Your task to perform on an android device: empty trash in the gmail app Image 0: 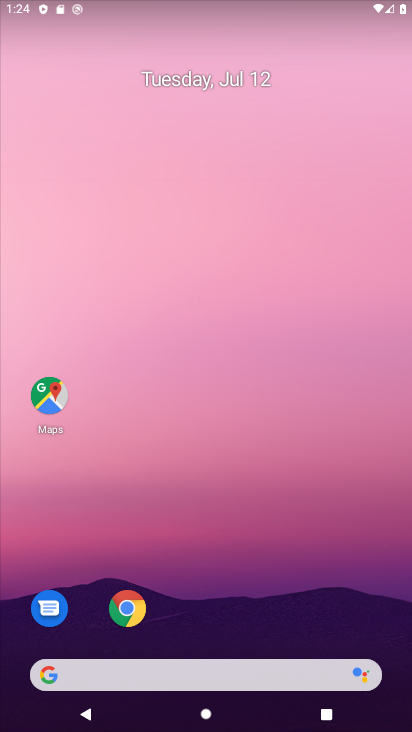
Step 0: click (211, 70)
Your task to perform on an android device: empty trash in the gmail app Image 1: 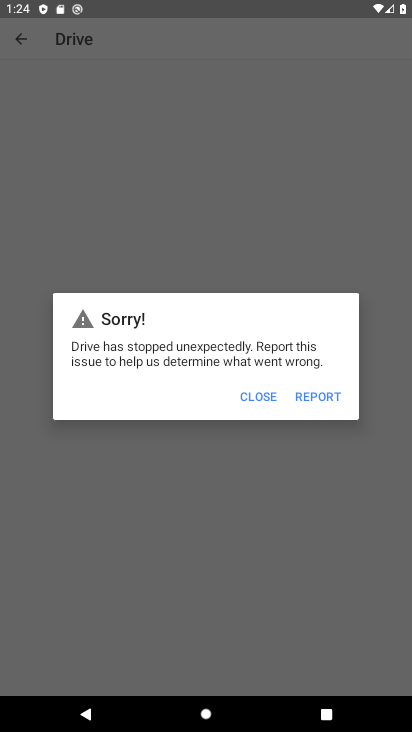
Step 1: press home button
Your task to perform on an android device: empty trash in the gmail app Image 2: 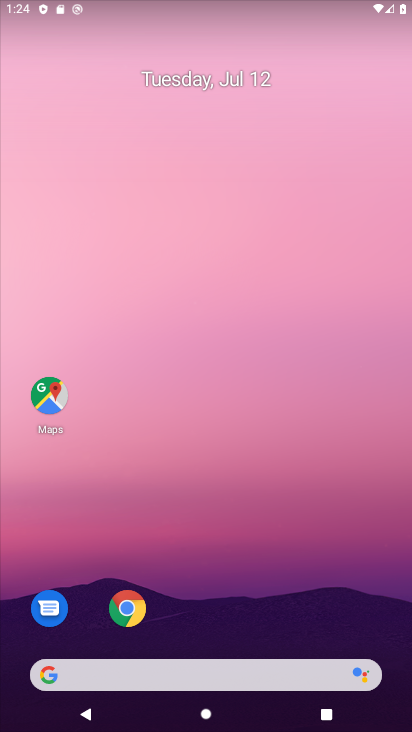
Step 2: drag from (208, 648) to (303, 66)
Your task to perform on an android device: empty trash in the gmail app Image 3: 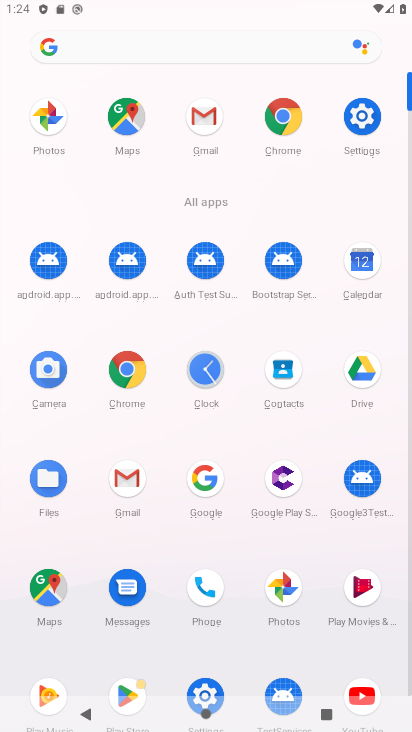
Step 3: click (126, 484)
Your task to perform on an android device: empty trash in the gmail app Image 4: 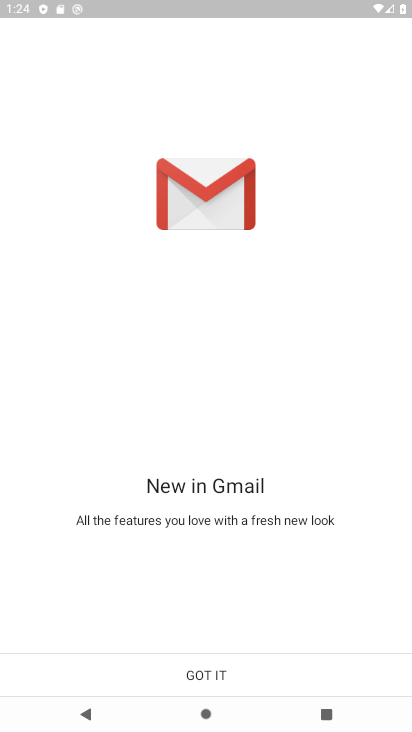
Step 4: click (235, 670)
Your task to perform on an android device: empty trash in the gmail app Image 5: 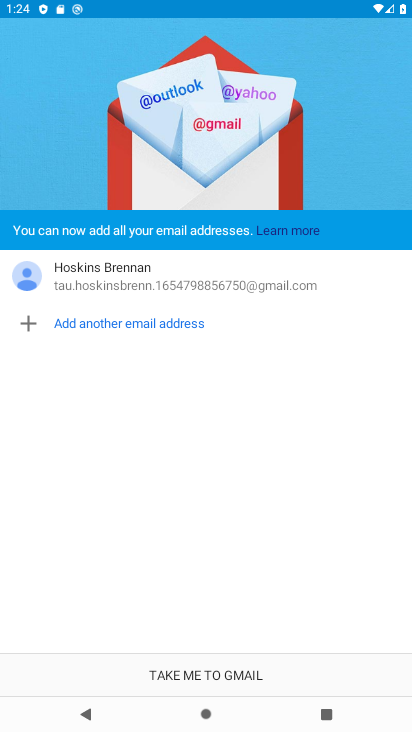
Step 5: click (235, 670)
Your task to perform on an android device: empty trash in the gmail app Image 6: 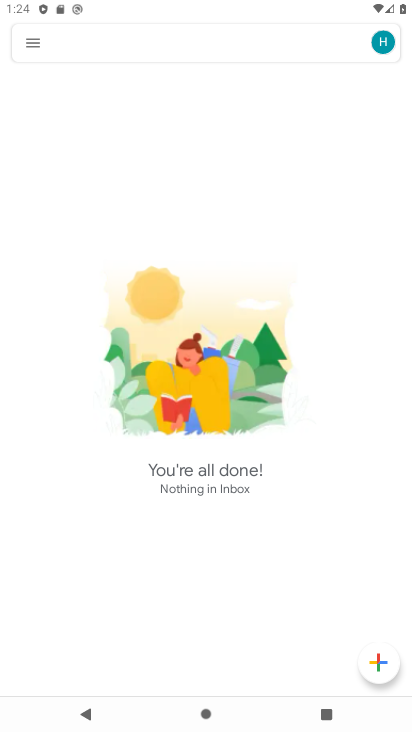
Step 6: click (43, 46)
Your task to perform on an android device: empty trash in the gmail app Image 7: 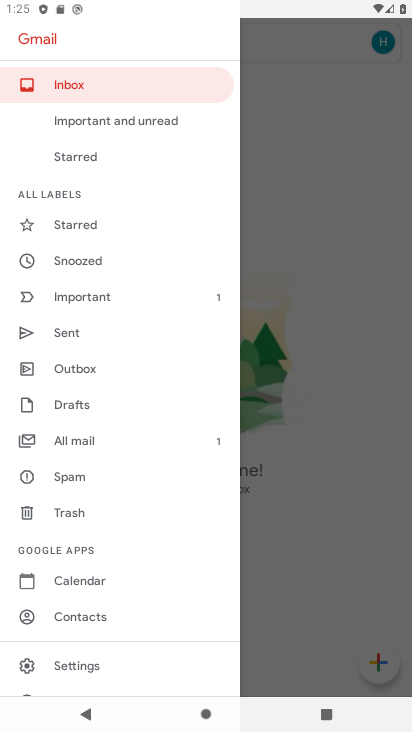
Step 7: click (110, 513)
Your task to perform on an android device: empty trash in the gmail app Image 8: 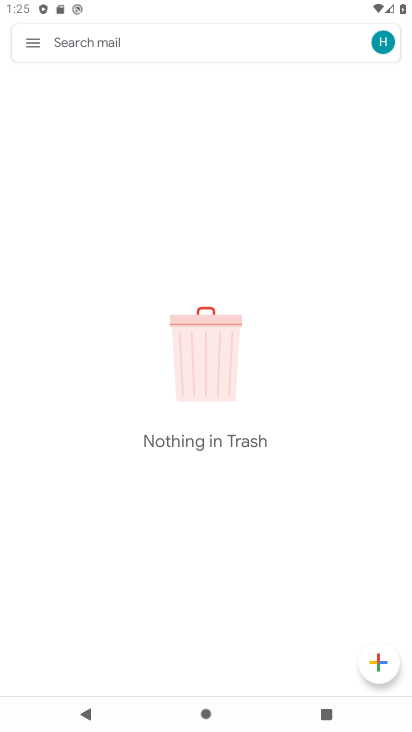
Step 8: task complete